Your task to perform on an android device: open a new tab in the chrome app Image 0: 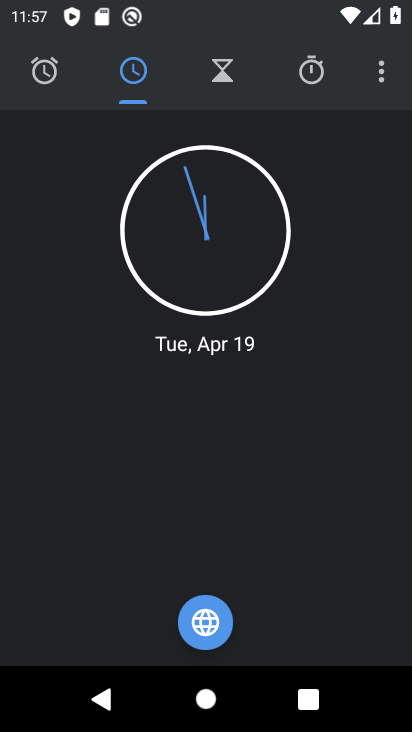
Step 0: press home button
Your task to perform on an android device: open a new tab in the chrome app Image 1: 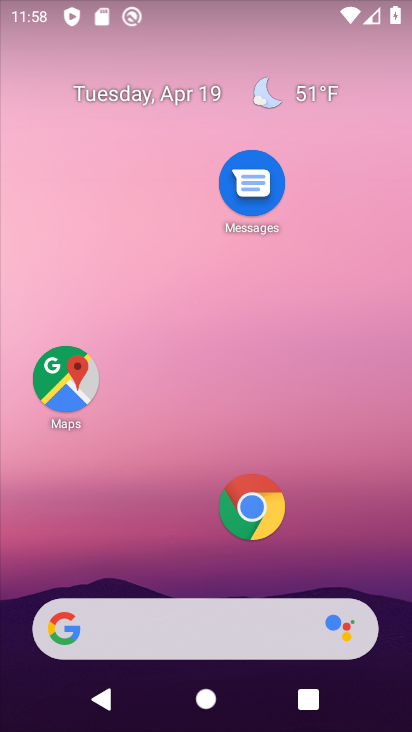
Step 1: click (253, 509)
Your task to perform on an android device: open a new tab in the chrome app Image 2: 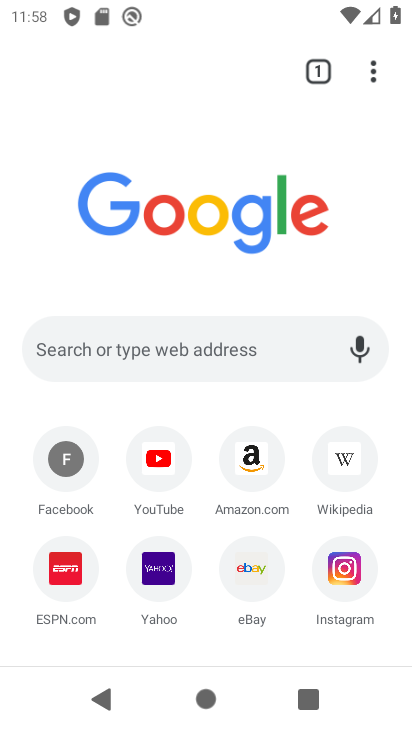
Step 2: task complete